Your task to perform on an android device: Do I have any events tomorrow? Image 0: 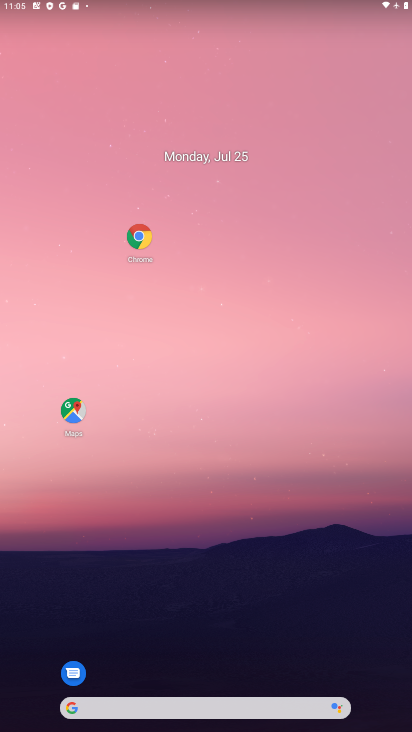
Step 0: drag from (275, 661) to (379, 153)
Your task to perform on an android device: Do I have any events tomorrow? Image 1: 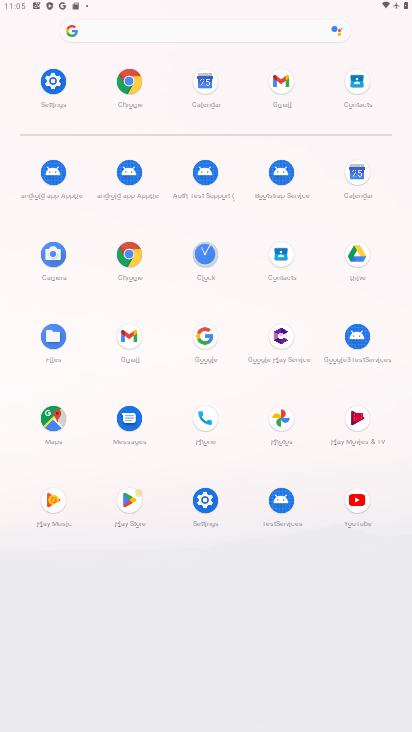
Step 1: click (215, 36)
Your task to perform on an android device: Do I have any events tomorrow? Image 2: 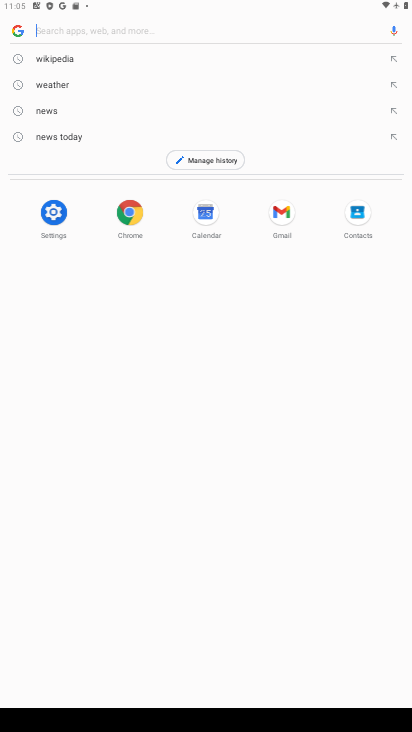
Step 2: click (202, 220)
Your task to perform on an android device: Do I have any events tomorrow? Image 3: 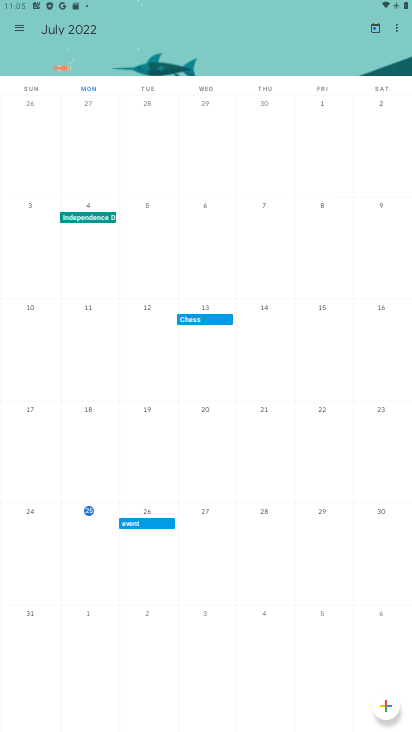
Step 3: task complete